Your task to perform on an android device: Open Wikipedia Image 0: 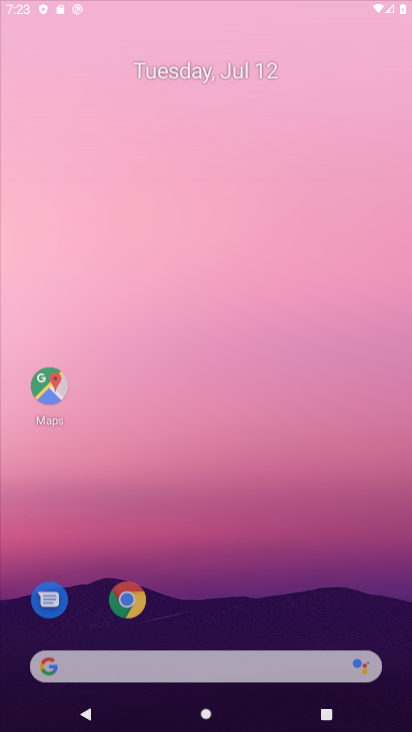
Step 0: click (136, 604)
Your task to perform on an android device: Open Wikipedia Image 1: 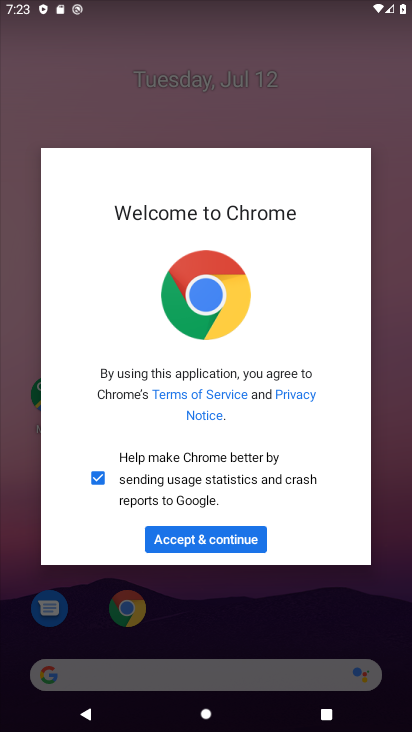
Step 1: click (229, 542)
Your task to perform on an android device: Open Wikipedia Image 2: 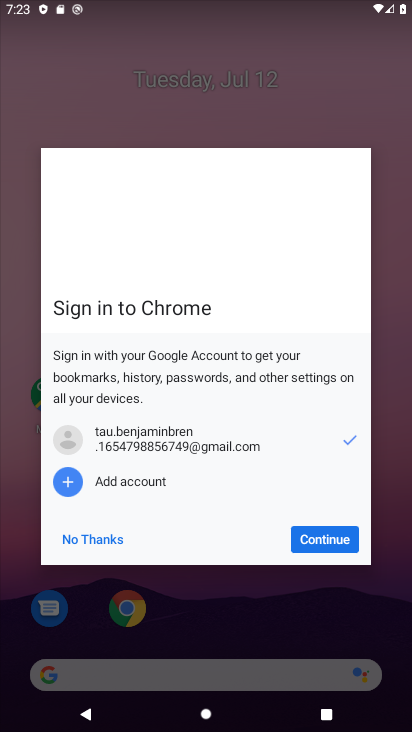
Step 2: click (333, 539)
Your task to perform on an android device: Open Wikipedia Image 3: 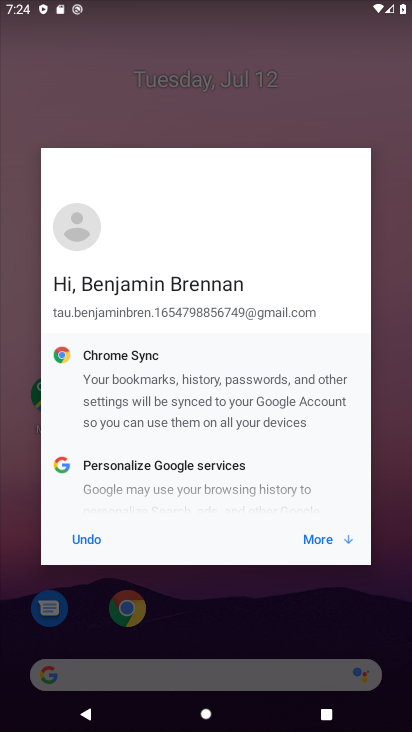
Step 3: click (329, 542)
Your task to perform on an android device: Open Wikipedia Image 4: 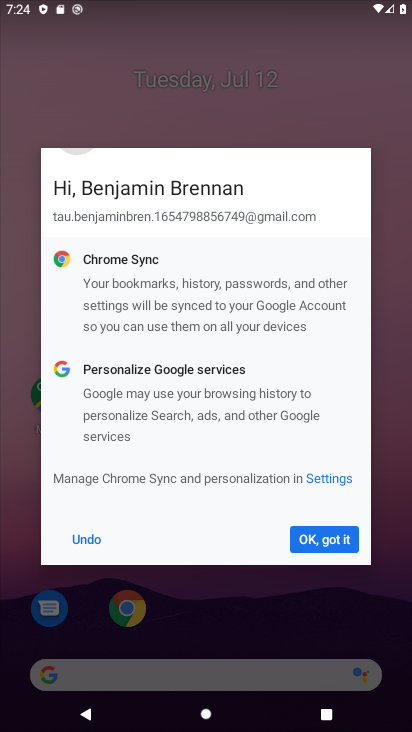
Step 4: click (335, 534)
Your task to perform on an android device: Open Wikipedia Image 5: 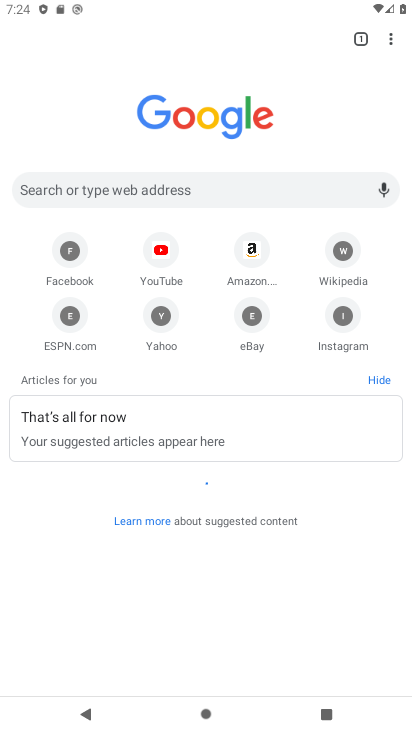
Step 5: click (353, 253)
Your task to perform on an android device: Open Wikipedia Image 6: 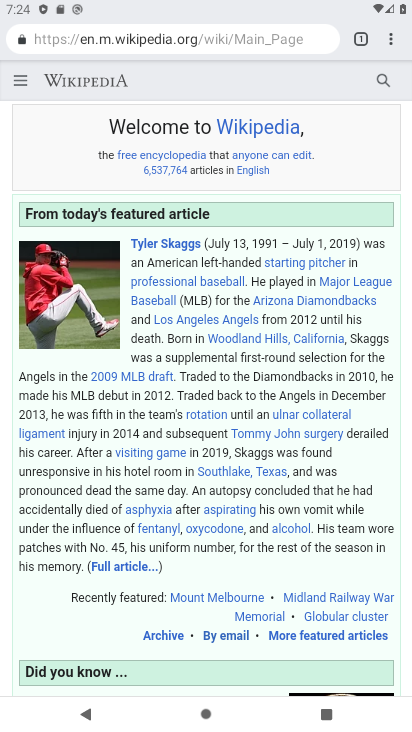
Step 6: task complete